Your task to perform on an android device: Go to display settings Image 0: 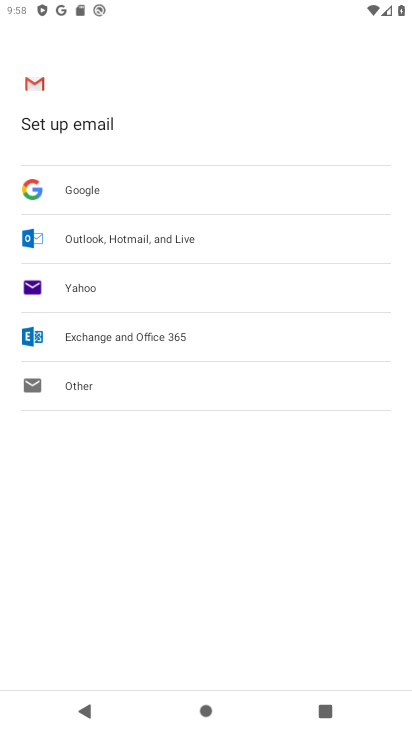
Step 0: press home button
Your task to perform on an android device: Go to display settings Image 1: 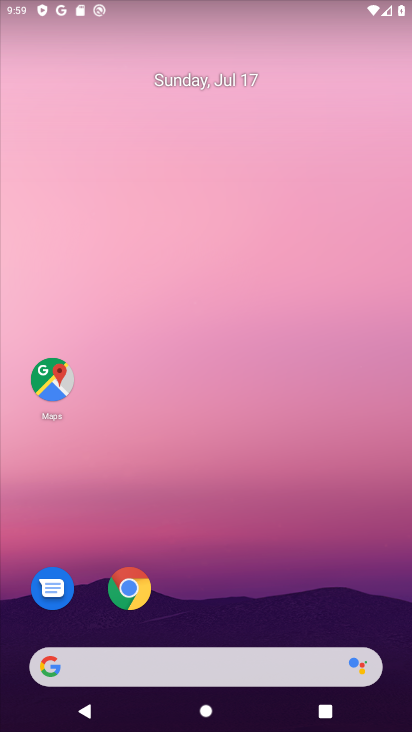
Step 1: drag from (212, 637) to (182, 14)
Your task to perform on an android device: Go to display settings Image 2: 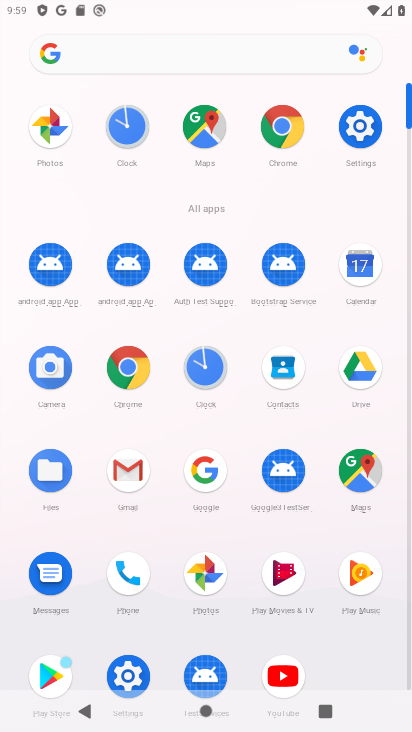
Step 2: click (350, 144)
Your task to perform on an android device: Go to display settings Image 3: 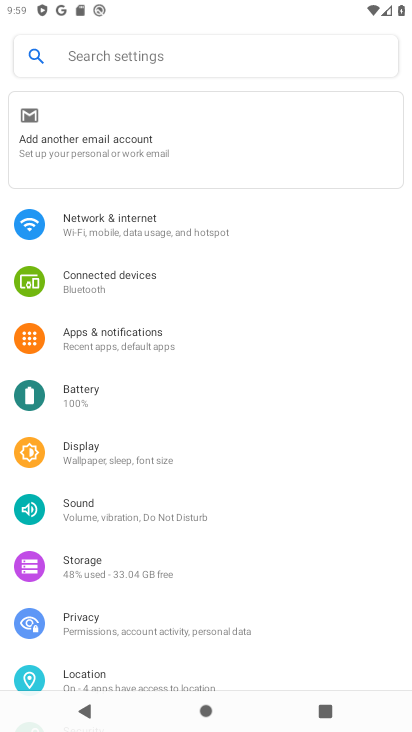
Step 3: drag from (94, 642) to (111, 438)
Your task to perform on an android device: Go to display settings Image 4: 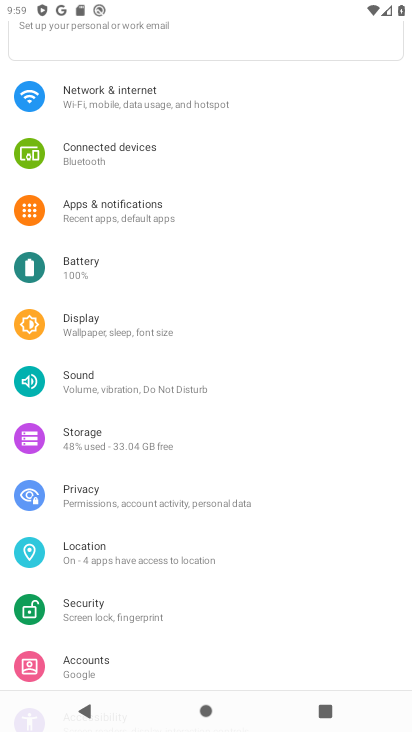
Step 4: click (67, 330)
Your task to perform on an android device: Go to display settings Image 5: 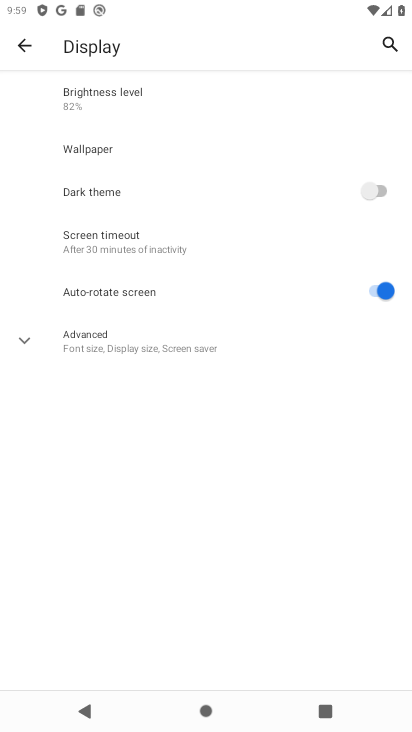
Step 5: click (48, 345)
Your task to perform on an android device: Go to display settings Image 6: 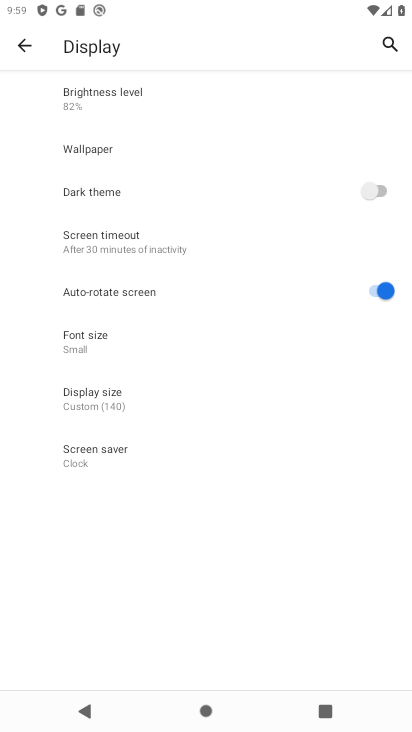
Step 6: task complete